Your task to perform on an android device: Clear the shopping cart on bestbuy. Search for "energizer triple a" on bestbuy, select the first entry, add it to the cart, then select checkout. Image 0: 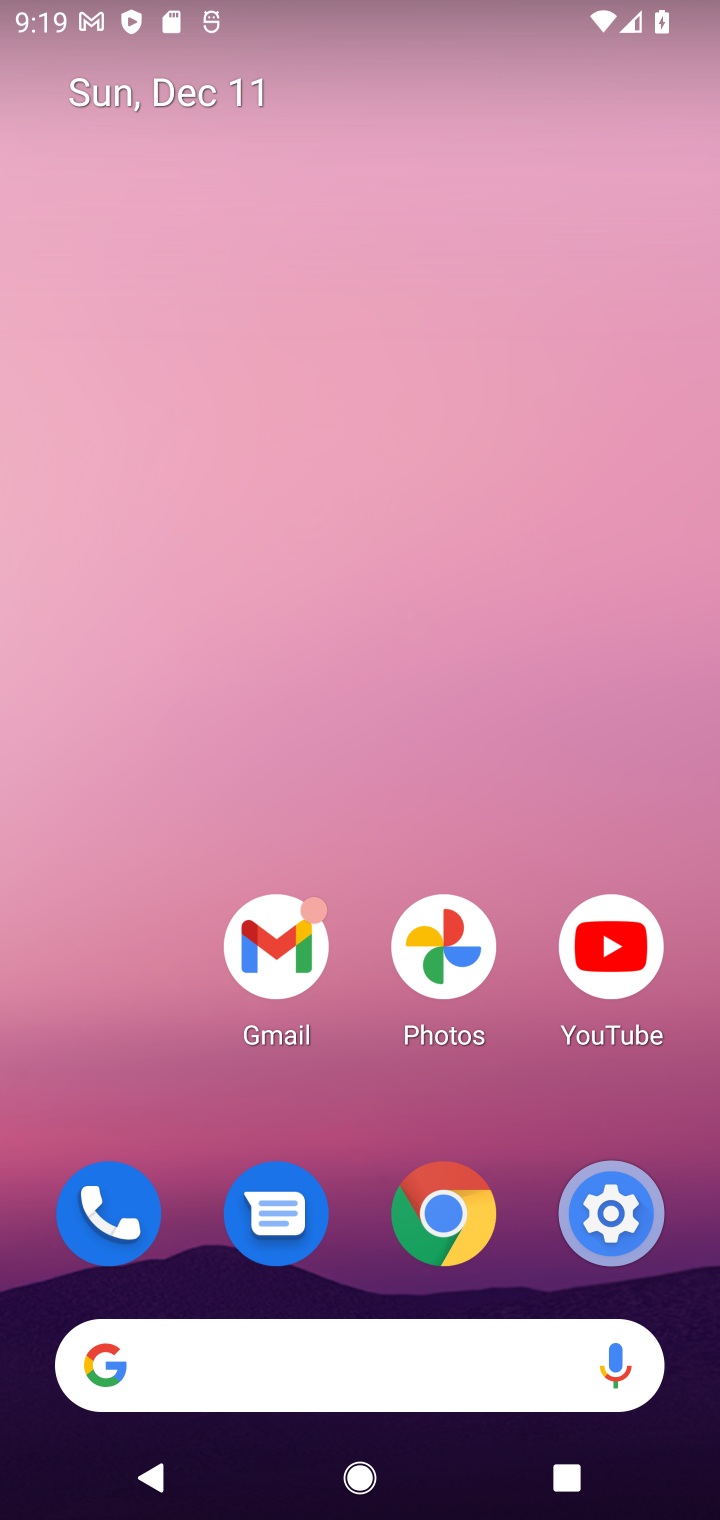
Step 0: click (257, 1353)
Your task to perform on an android device: Clear the shopping cart on bestbuy. Search for "energizer triple a" on bestbuy, select the first entry, add it to the cart, then select checkout. Image 1: 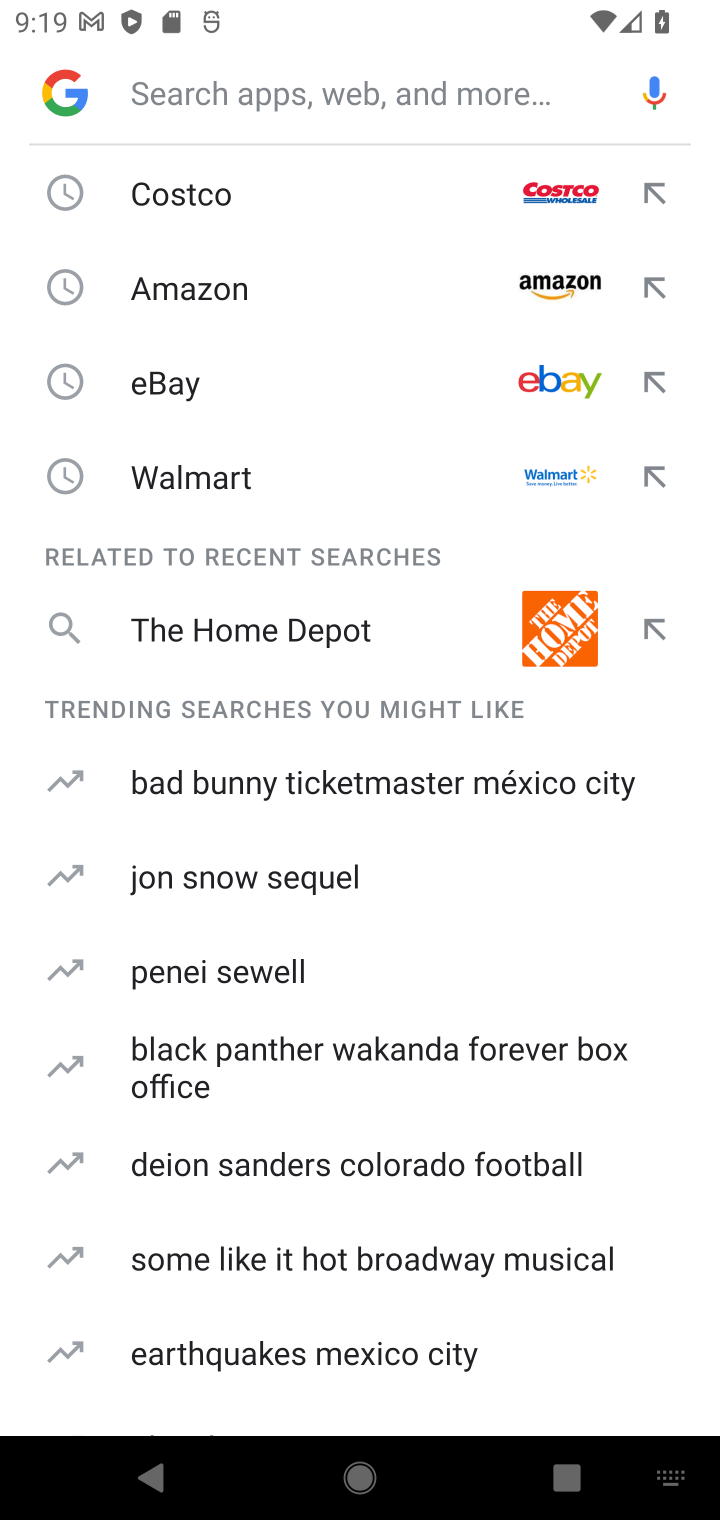
Step 1: type "bestbuy"
Your task to perform on an android device: Clear the shopping cart on bestbuy. Search for "energizer triple a" on bestbuy, select the first entry, add it to the cart, then select checkout. Image 2: 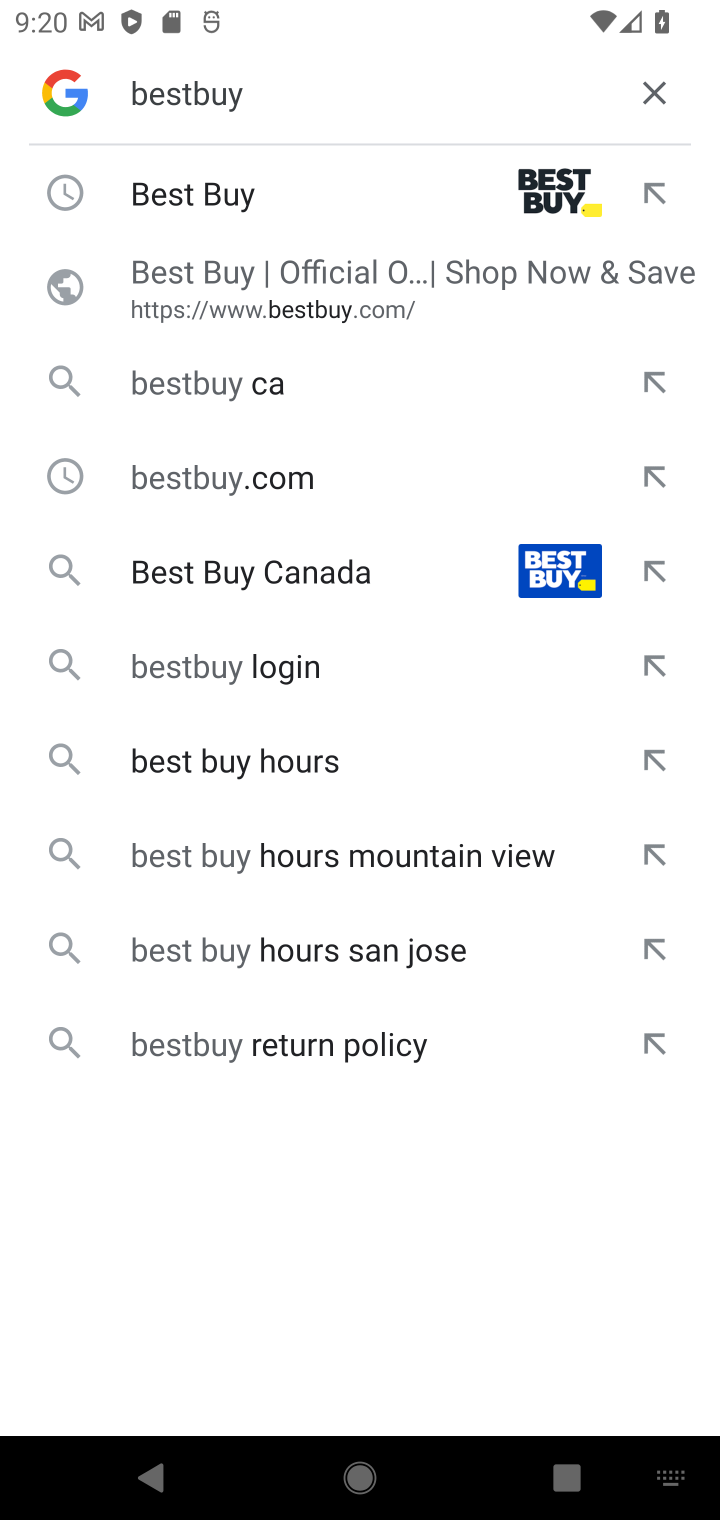
Step 2: click (361, 208)
Your task to perform on an android device: Clear the shopping cart on bestbuy. Search for "energizer triple a" on bestbuy, select the first entry, add it to the cart, then select checkout. Image 3: 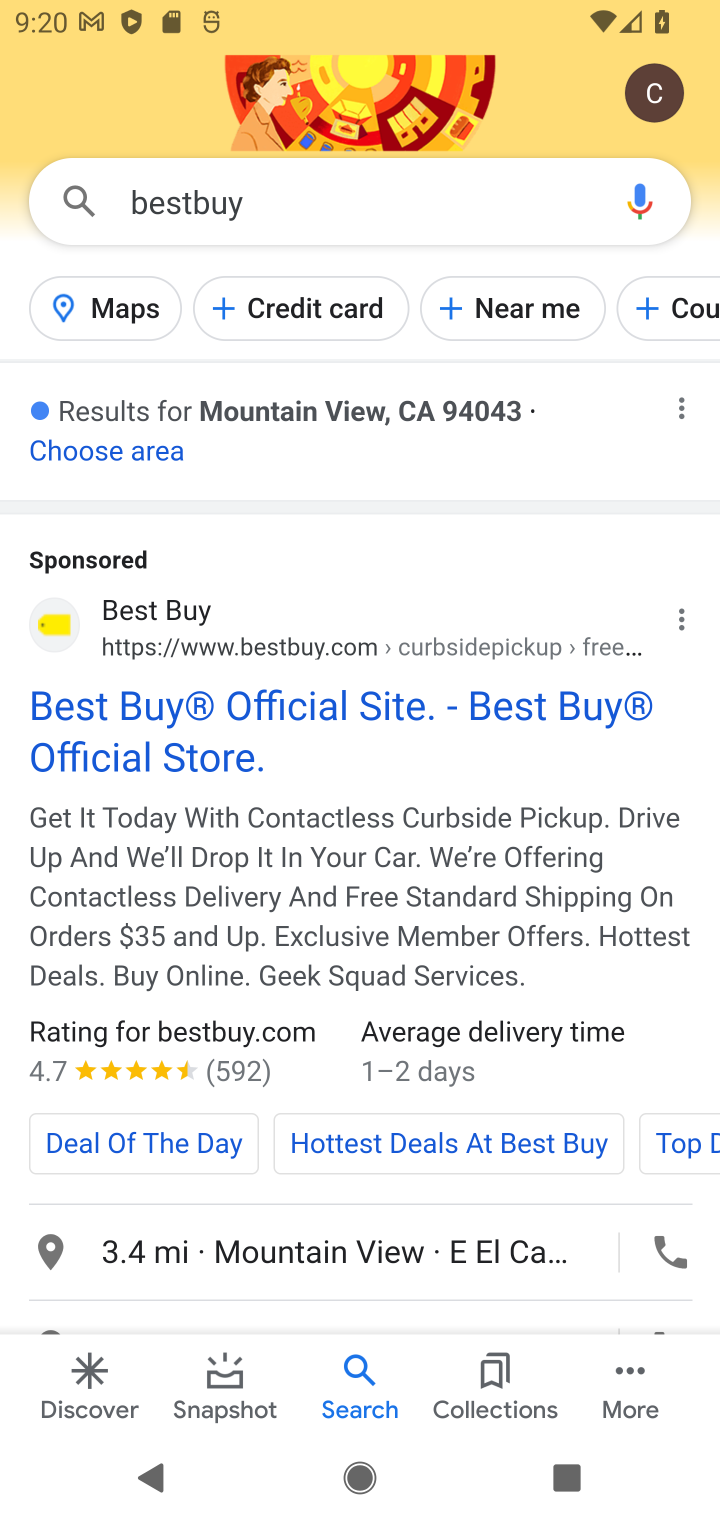
Step 3: click (248, 770)
Your task to perform on an android device: Clear the shopping cart on bestbuy. Search for "energizer triple a" on bestbuy, select the first entry, add it to the cart, then select checkout. Image 4: 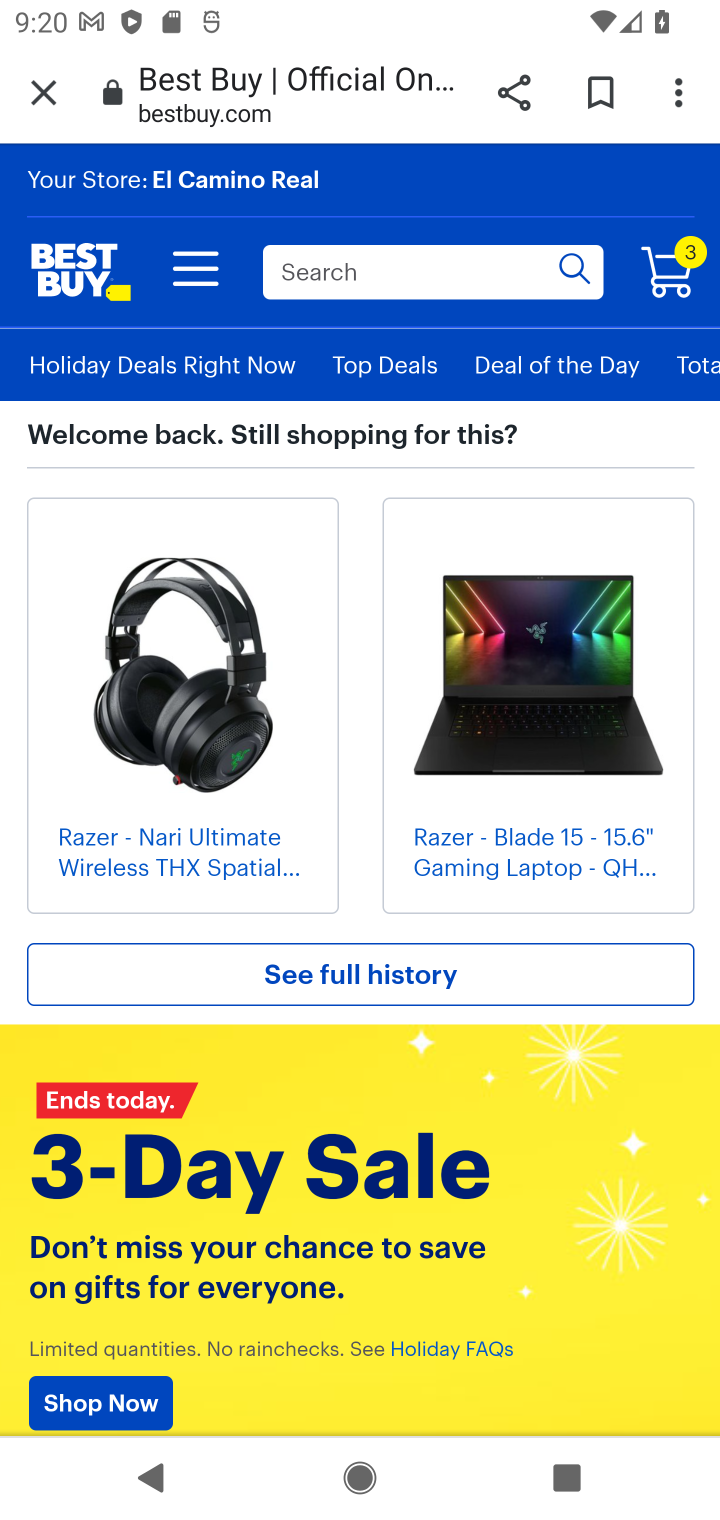
Step 4: click (419, 281)
Your task to perform on an android device: Clear the shopping cart on bestbuy. Search for "energizer triple a" on bestbuy, select the first entry, add it to the cart, then select checkout. Image 5: 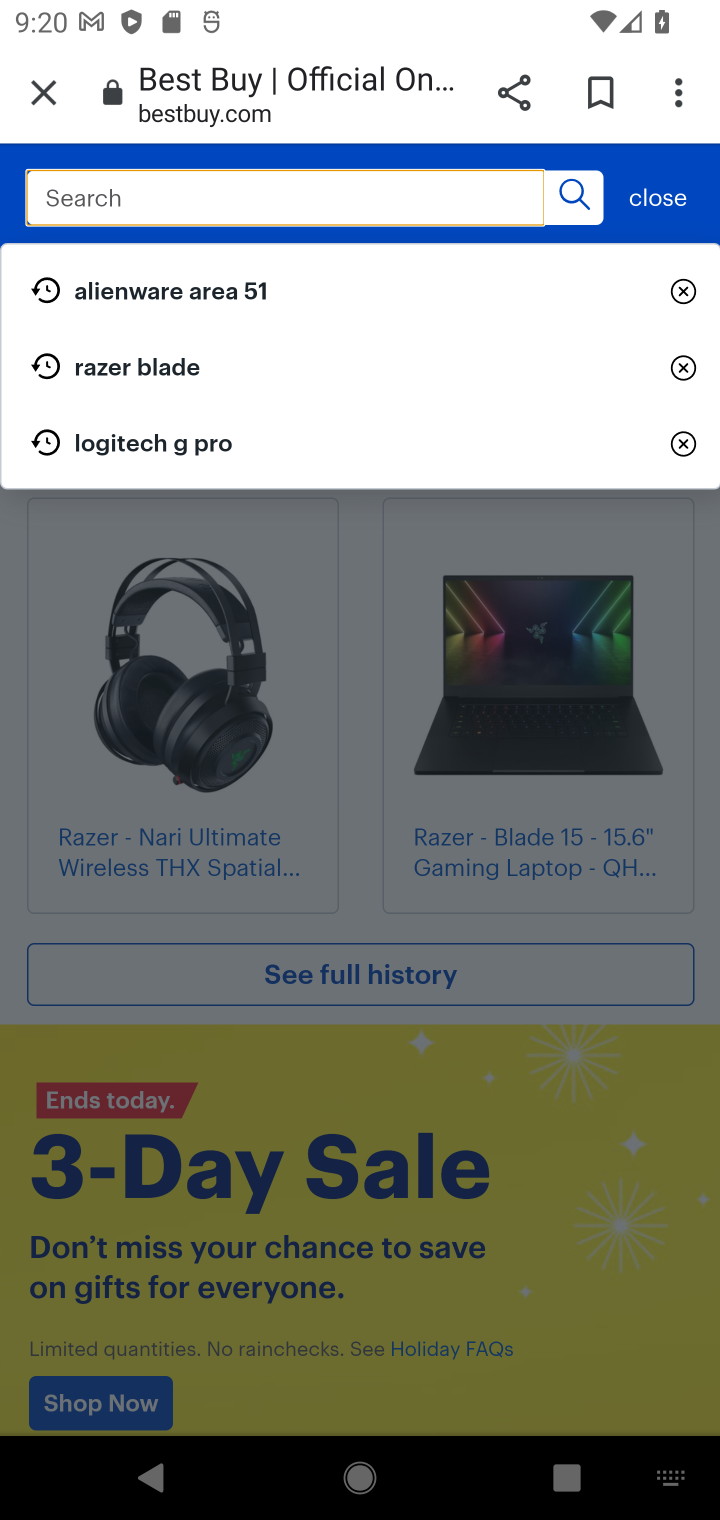
Step 5: type "energizer triple a"
Your task to perform on an android device: Clear the shopping cart on bestbuy. Search for "energizer triple a" on bestbuy, select the first entry, add it to the cart, then select checkout. Image 6: 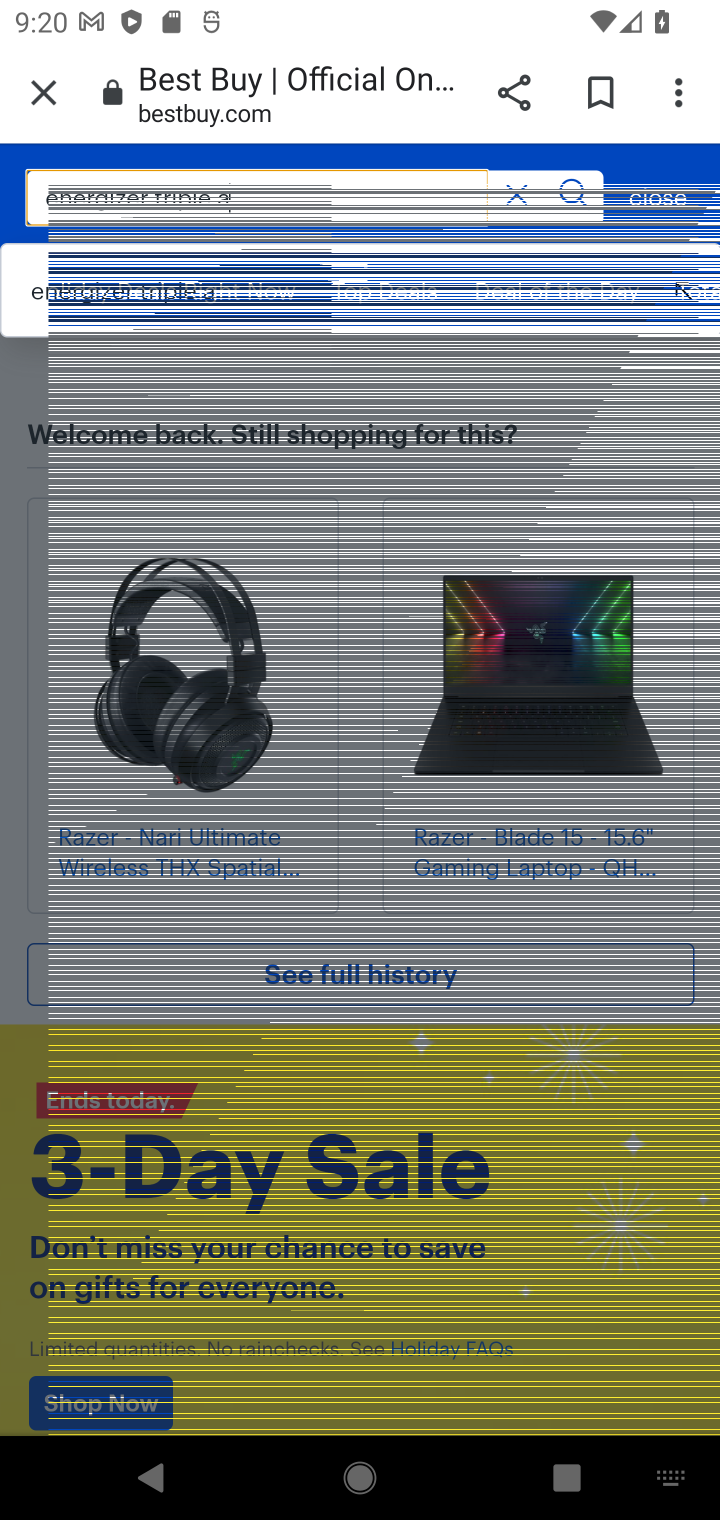
Step 6: click (170, 308)
Your task to perform on an android device: Clear the shopping cart on bestbuy. Search for "energizer triple a" on bestbuy, select the first entry, add it to the cart, then select checkout. Image 7: 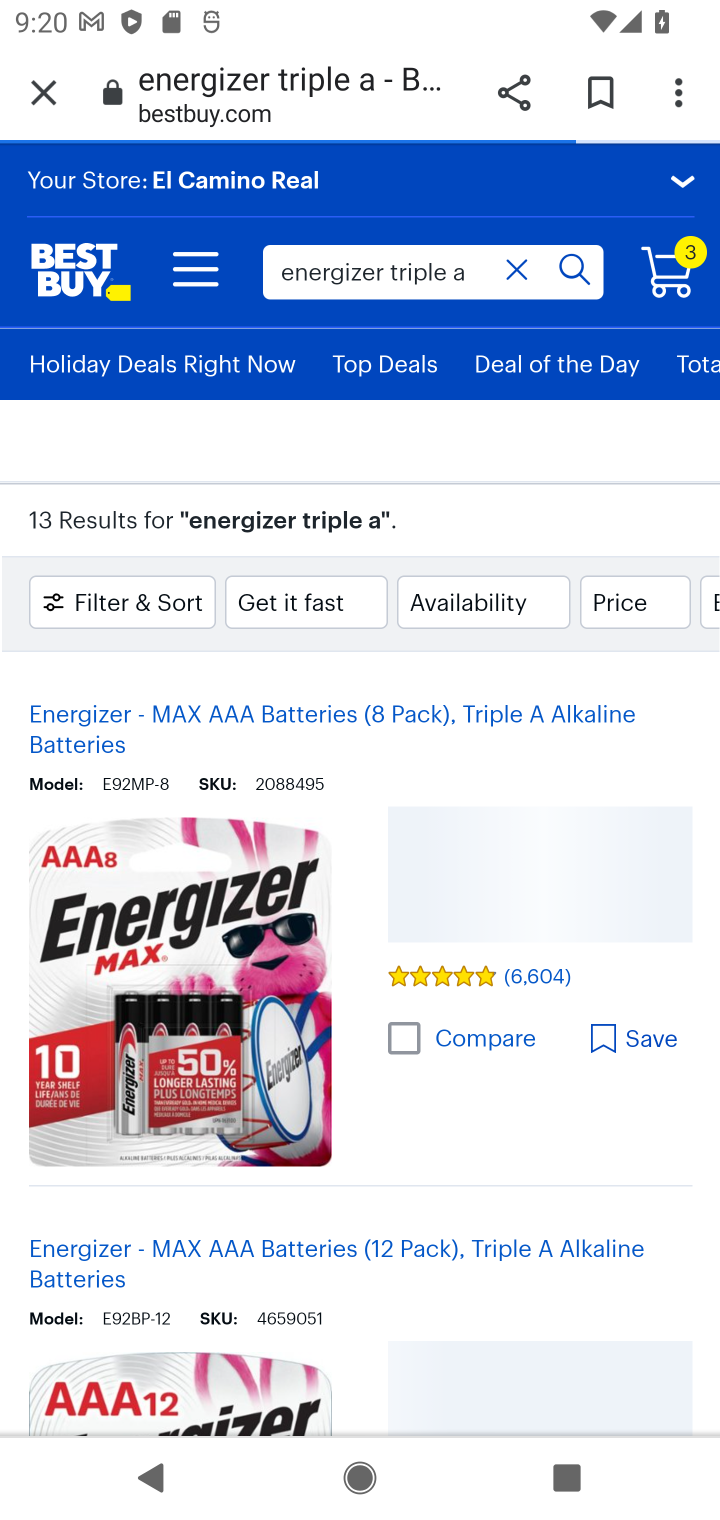
Step 7: click (278, 993)
Your task to perform on an android device: Clear the shopping cart on bestbuy. Search for "energizer triple a" on bestbuy, select the first entry, add it to the cart, then select checkout. Image 8: 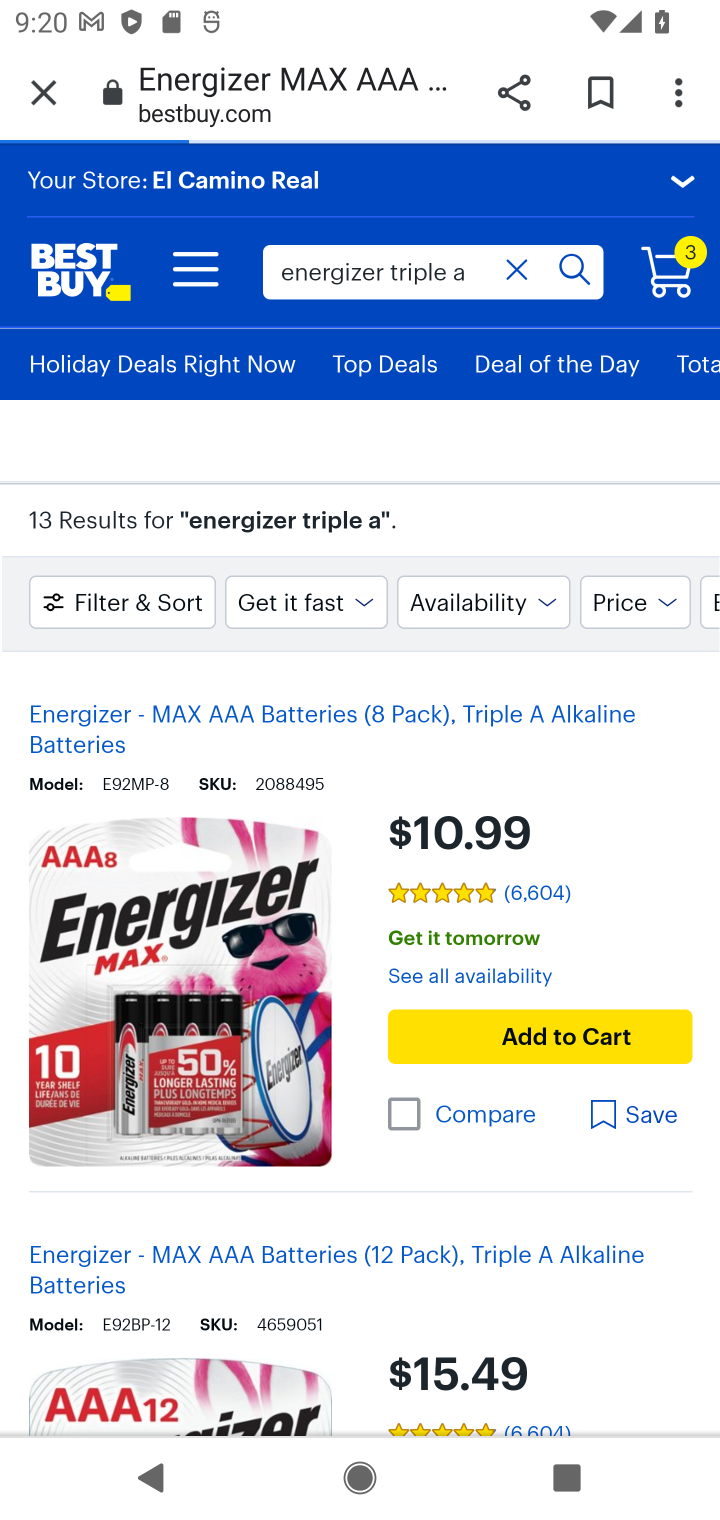
Step 8: click (423, 1032)
Your task to perform on an android device: Clear the shopping cart on bestbuy. Search for "energizer triple a" on bestbuy, select the first entry, add it to the cart, then select checkout. Image 9: 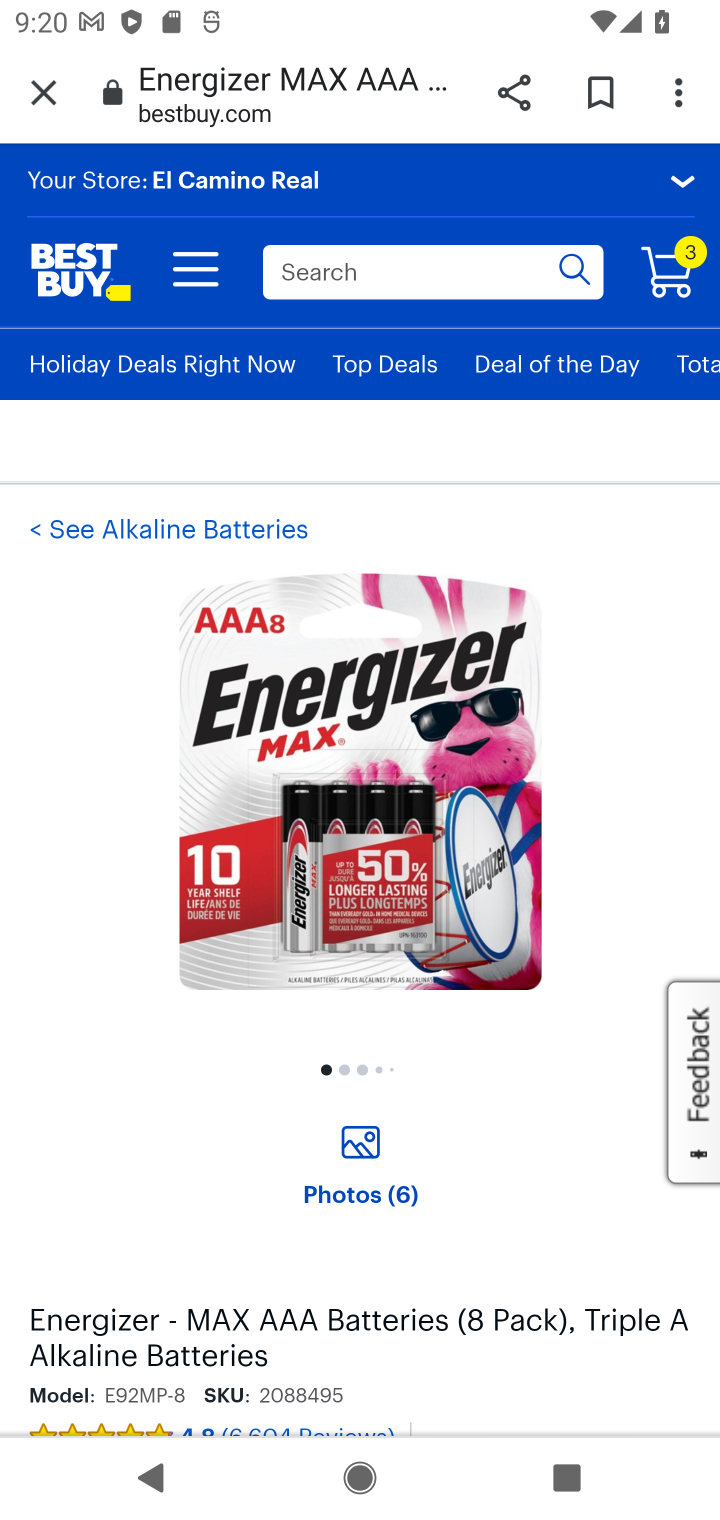
Step 9: task complete